Your task to perform on an android device: open a new tab in the chrome app Image 0: 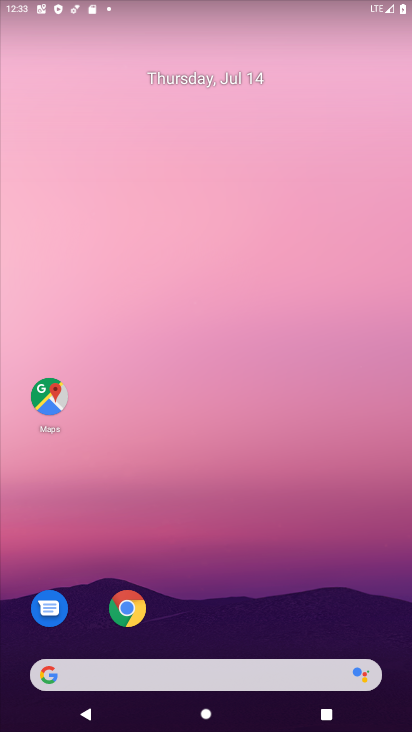
Step 0: press home button
Your task to perform on an android device: open a new tab in the chrome app Image 1: 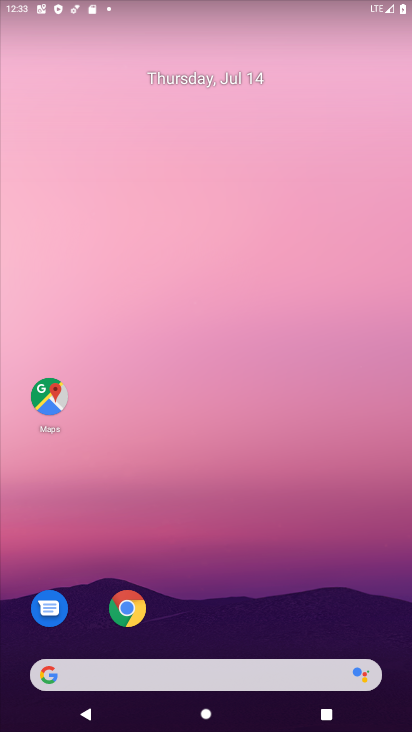
Step 1: click (122, 602)
Your task to perform on an android device: open a new tab in the chrome app Image 2: 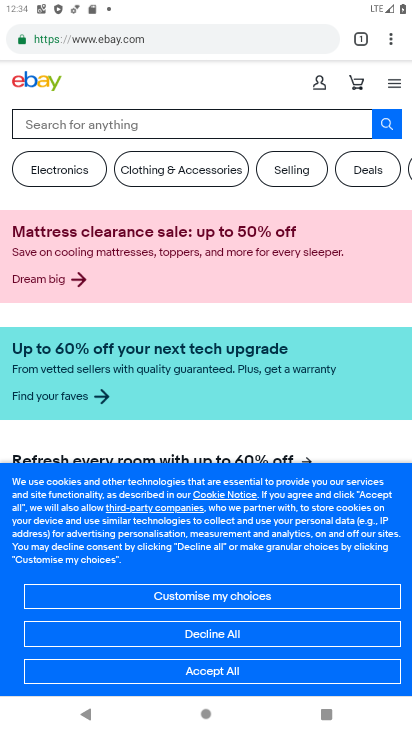
Step 2: click (364, 43)
Your task to perform on an android device: open a new tab in the chrome app Image 3: 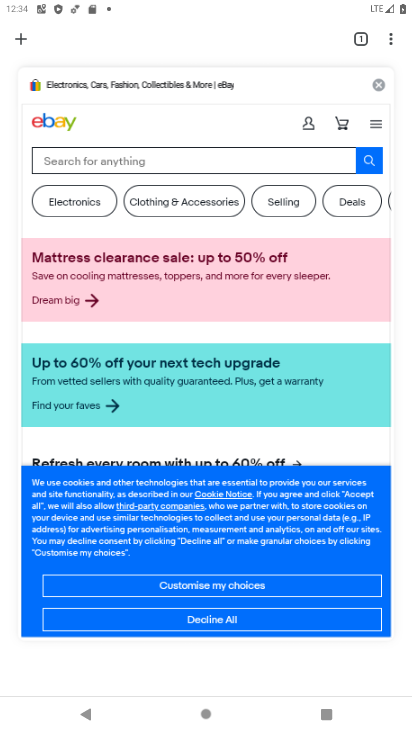
Step 3: click (23, 37)
Your task to perform on an android device: open a new tab in the chrome app Image 4: 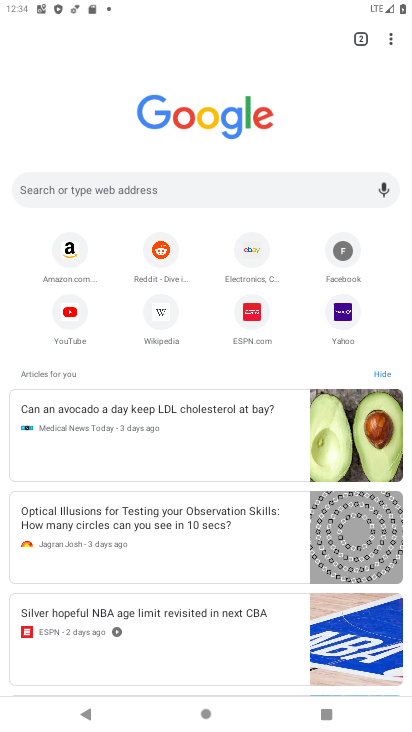
Step 4: task complete